Your task to perform on an android device: Go to internet settings Image 0: 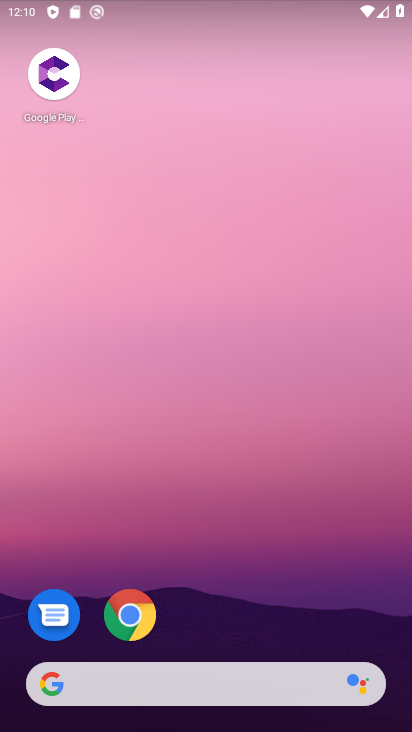
Step 0: drag from (315, 586) to (300, 187)
Your task to perform on an android device: Go to internet settings Image 1: 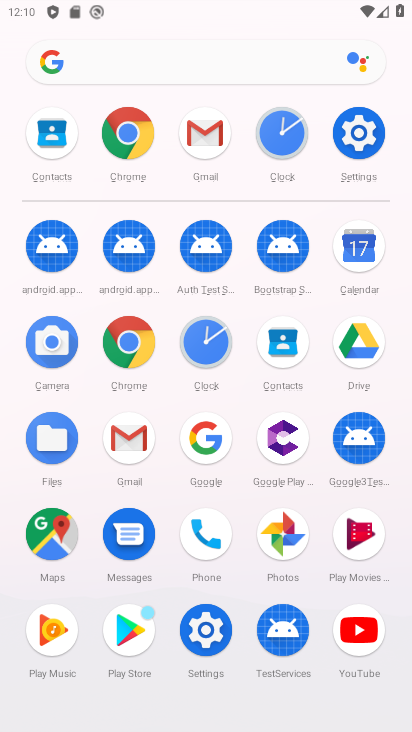
Step 1: click (365, 137)
Your task to perform on an android device: Go to internet settings Image 2: 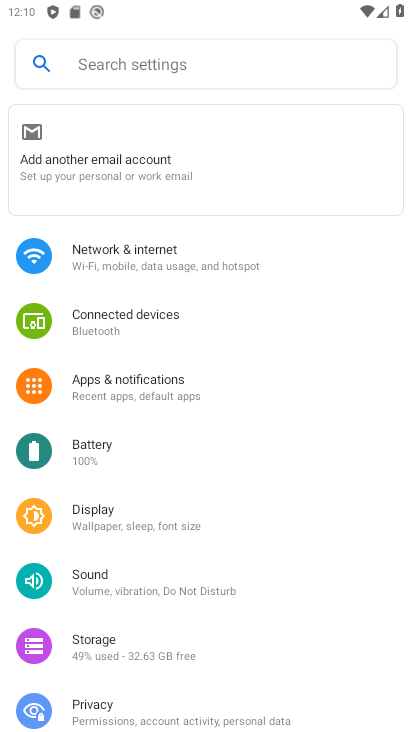
Step 2: click (211, 120)
Your task to perform on an android device: Go to internet settings Image 3: 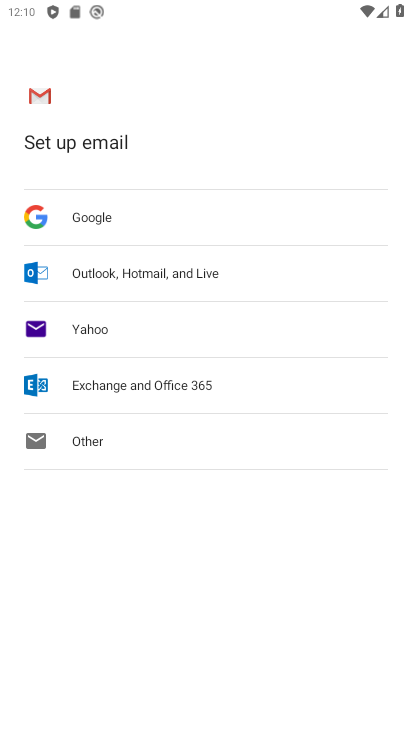
Step 3: task complete